Your task to perform on an android device: turn on bluetooth scan Image 0: 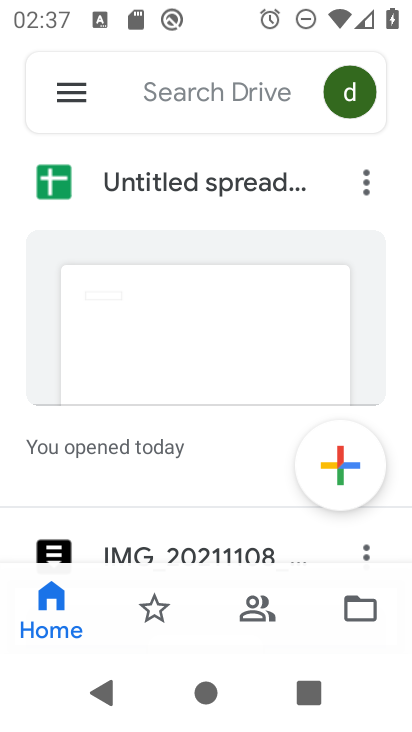
Step 0: press home button
Your task to perform on an android device: turn on bluetooth scan Image 1: 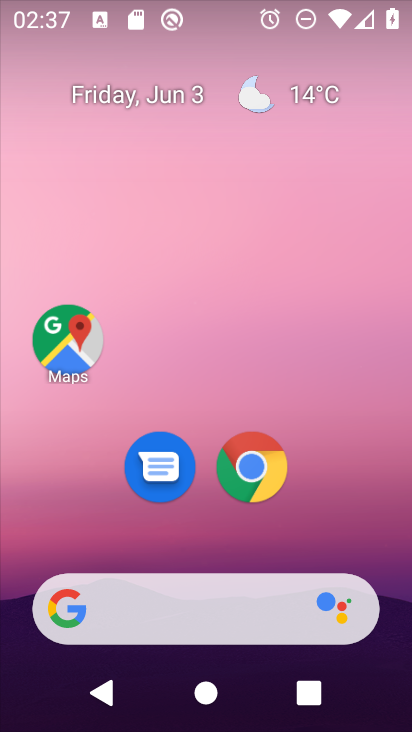
Step 1: drag from (396, 627) to (347, 85)
Your task to perform on an android device: turn on bluetooth scan Image 2: 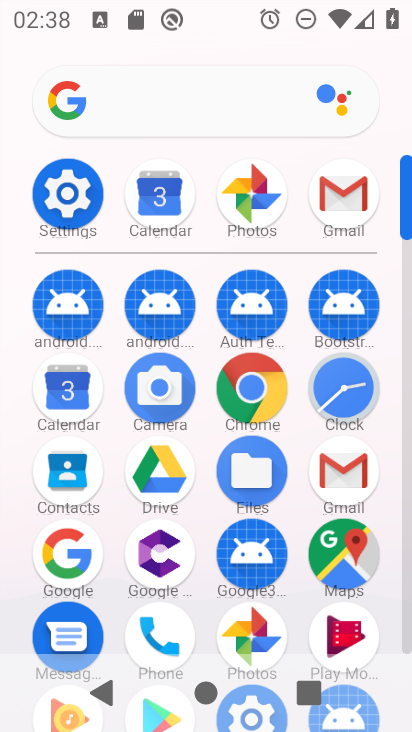
Step 2: click (407, 634)
Your task to perform on an android device: turn on bluetooth scan Image 3: 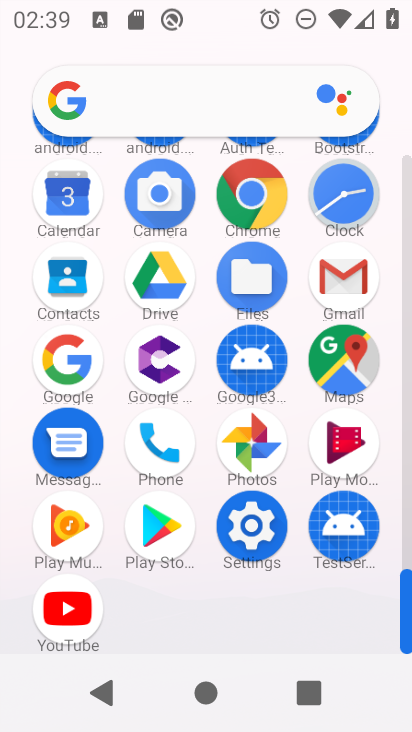
Step 3: click (246, 526)
Your task to perform on an android device: turn on bluetooth scan Image 4: 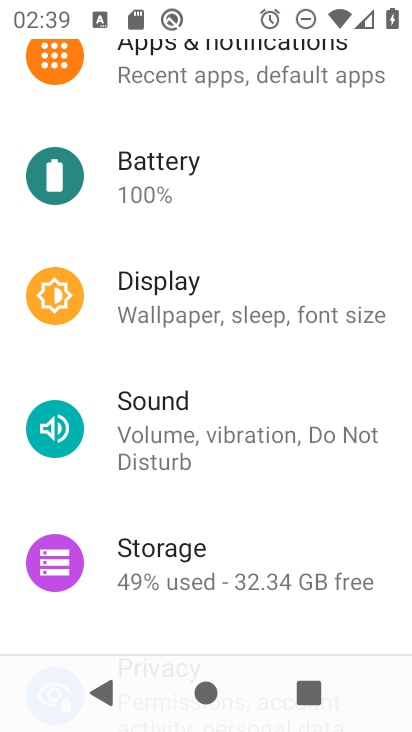
Step 4: drag from (337, 476) to (302, 141)
Your task to perform on an android device: turn on bluetooth scan Image 5: 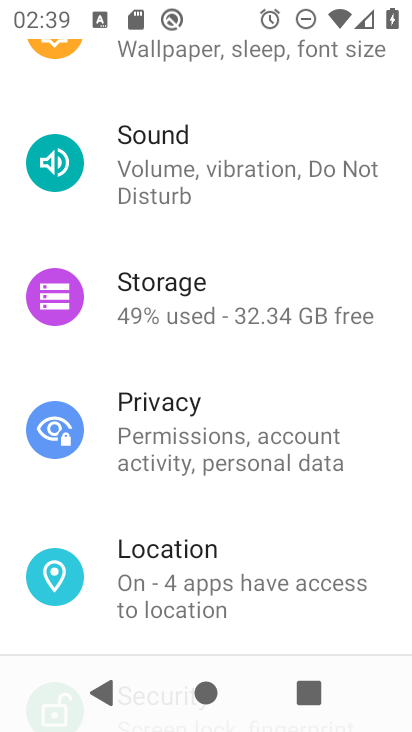
Step 5: drag from (360, 584) to (331, 198)
Your task to perform on an android device: turn on bluetooth scan Image 6: 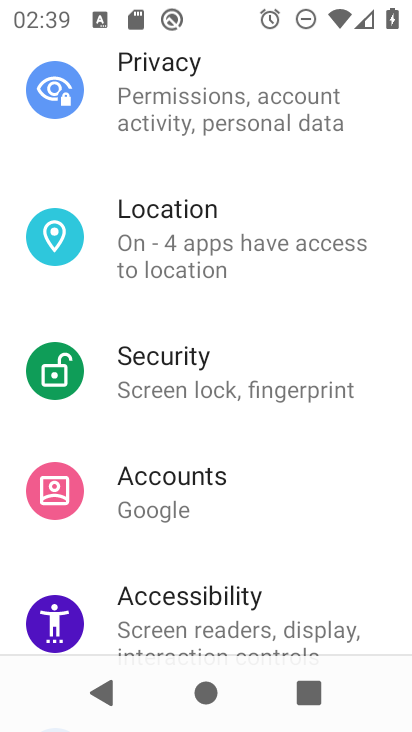
Step 6: click (161, 232)
Your task to perform on an android device: turn on bluetooth scan Image 7: 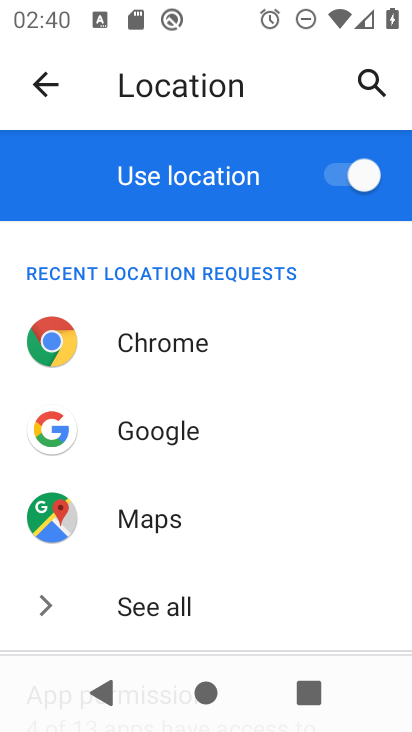
Step 7: drag from (248, 523) to (252, 250)
Your task to perform on an android device: turn on bluetooth scan Image 8: 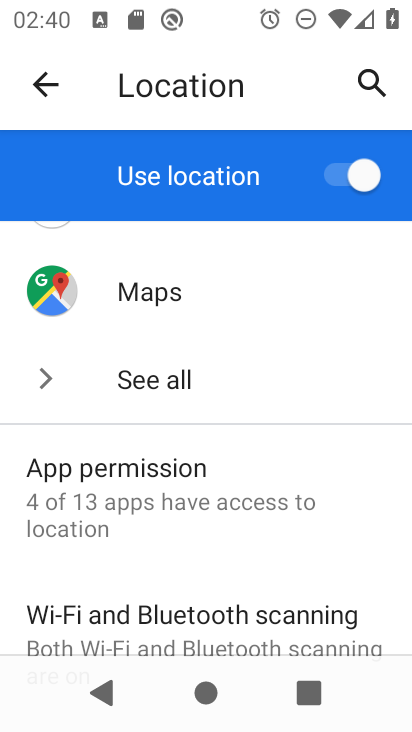
Step 8: click (212, 178)
Your task to perform on an android device: turn on bluetooth scan Image 9: 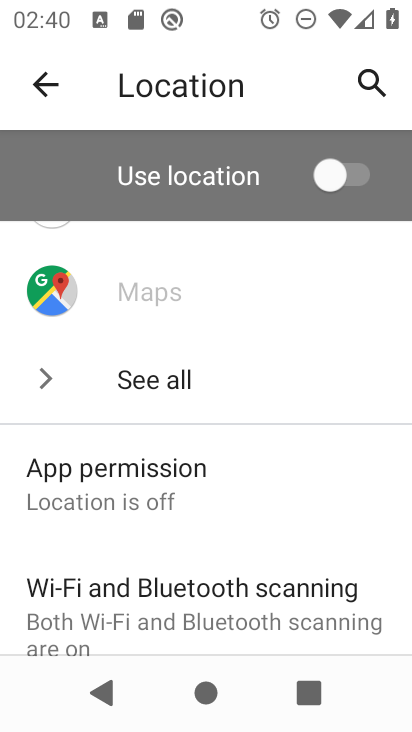
Step 9: drag from (163, 619) to (169, 37)
Your task to perform on an android device: turn on bluetooth scan Image 10: 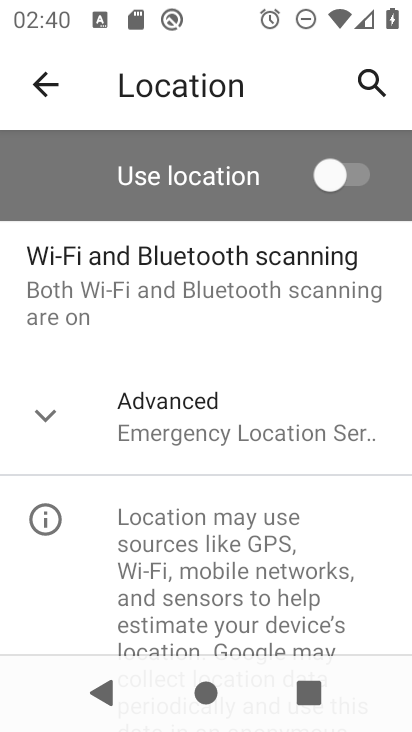
Step 10: click (51, 422)
Your task to perform on an android device: turn on bluetooth scan Image 11: 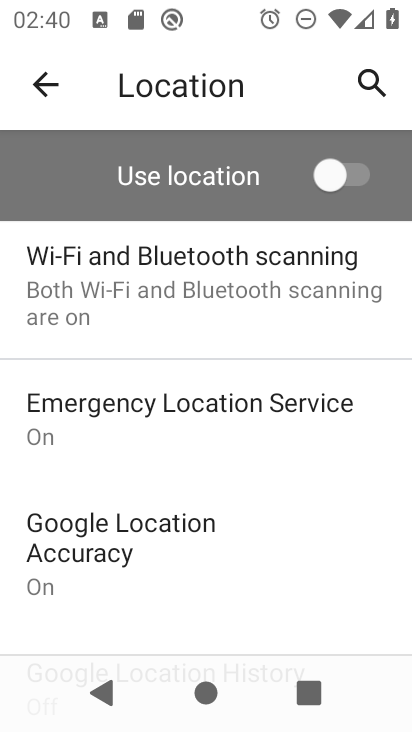
Step 11: click (209, 581)
Your task to perform on an android device: turn on bluetooth scan Image 12: 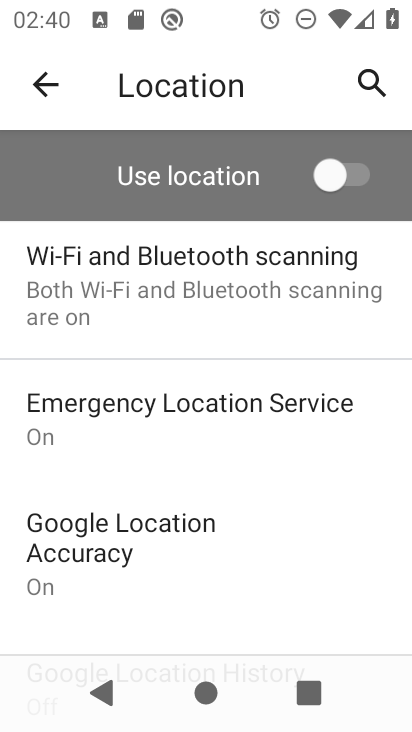
Step 12: click (89, 277)
Your task to perform on an android device: turn on bluetooth scan Image 13: 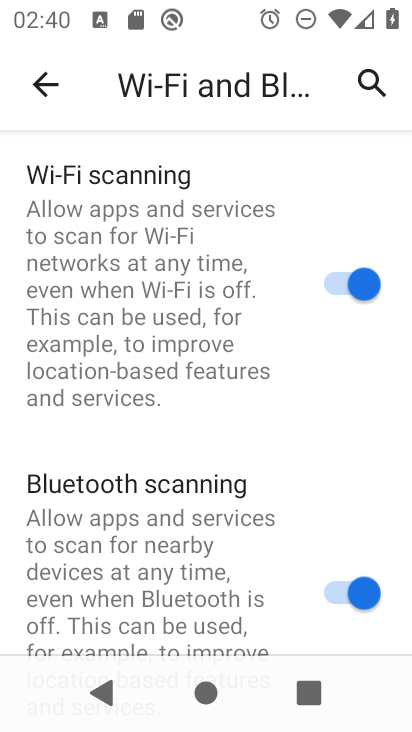
Step 13: task complete